Your task to perform on an android device: Go to internet settings Image 0: 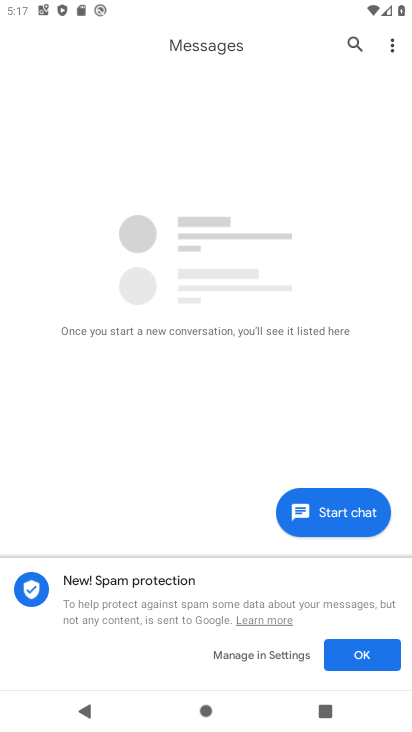
Step 0: press home button
Your task to perform on an android device: Go to internet settings Image 1: 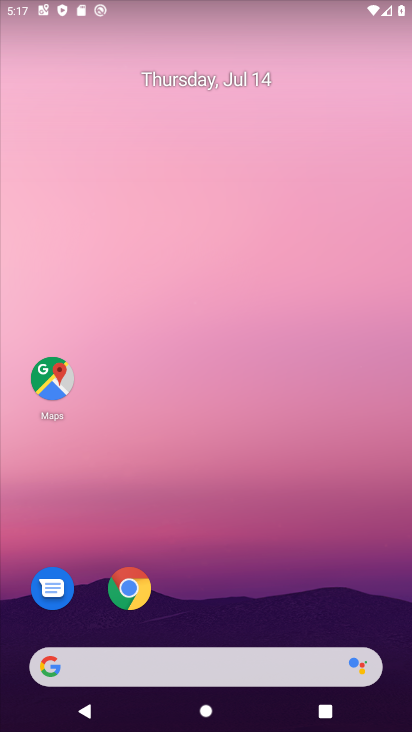
Step 1: drag from (158, 541) to (152, 206)
Your task to perform on an android device: Go to internet settings Image 2: 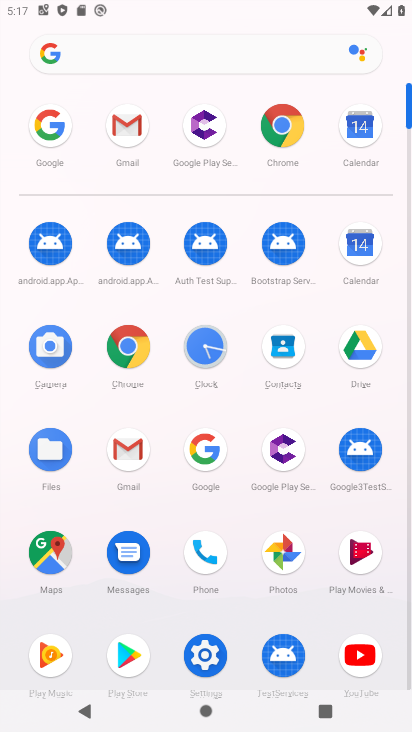
Step 2: click (208, 655)
Your task to perform on an android device: Go to internet settings Image 3: 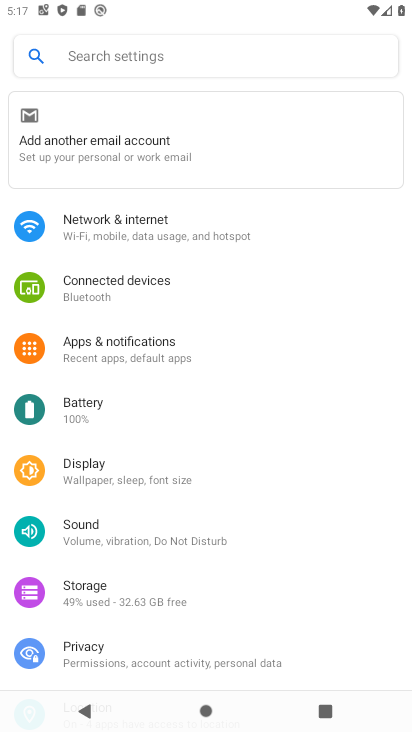
Step 3: click (116, 220)
Your task to perform on an android device: Go to internet settings Image 4: 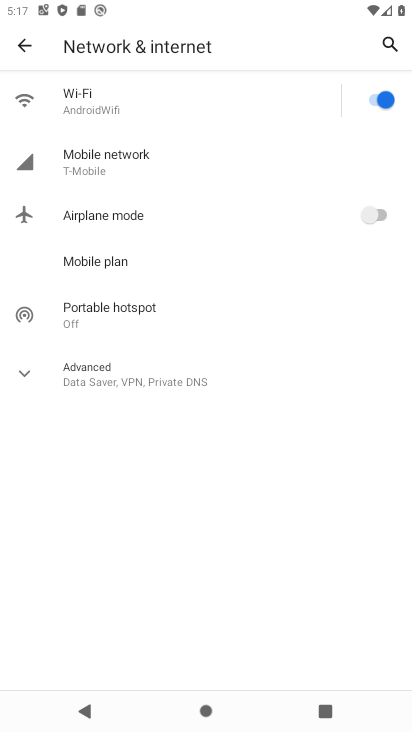
Step 4: click (138, 379)
Your task to perform on an android device: Go to internet settings Image 5: 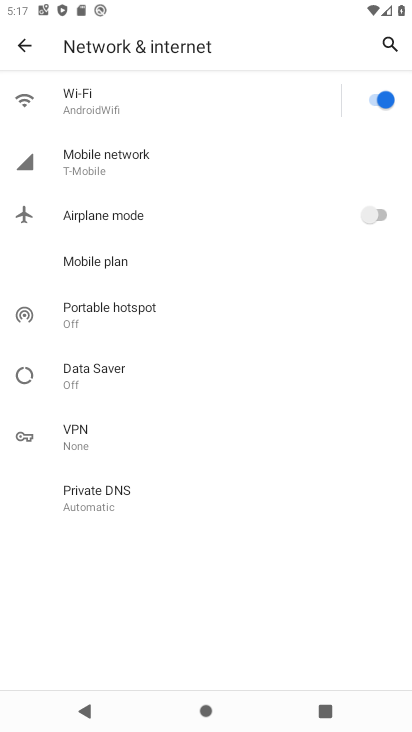
Step 5: click (89, 92)
Your task to perform on an android device: Go to internet settings Image 6: 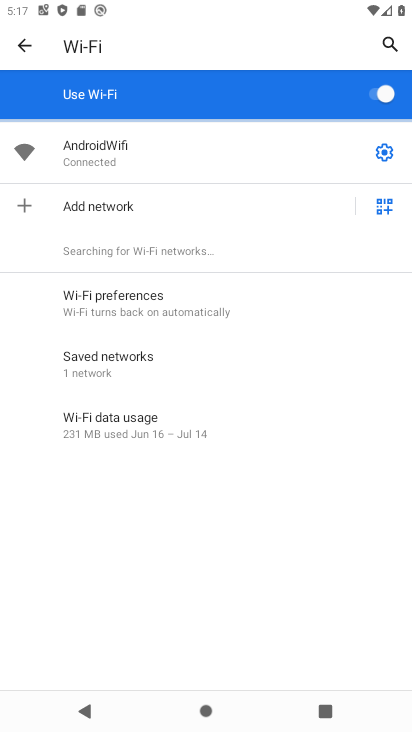
Step 6: task complete